Your task to perform on an android device: What's on my calendar tomorrow? Image 0: 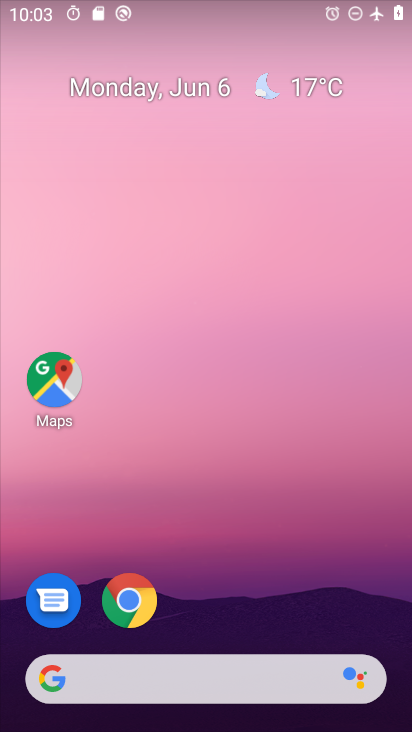
Step 0: drag from (273, 555) to (149, 49)
Your task to perform on an android device: What's on my calendar tomorrow? Image 1: 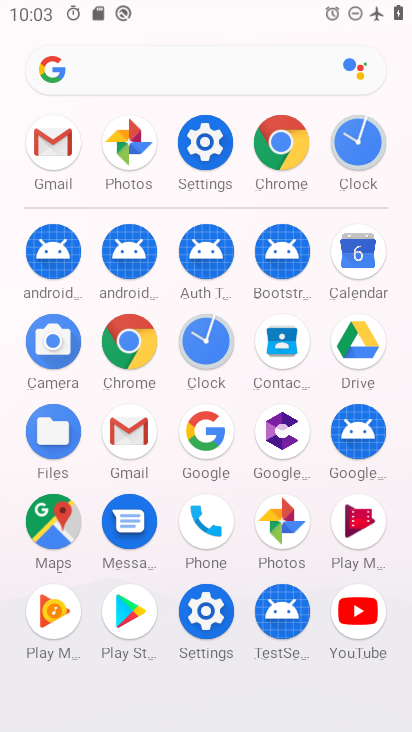
Step 1: click (369, 249)
Your task to perform on an android device: What's on my calendar tomorrow? Image 2: 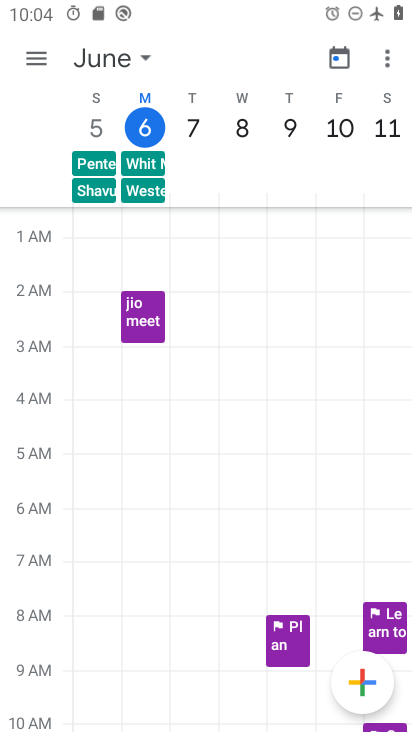
Step 2: task complete